Your task to perform on an android device: toggle javascript in the chrome app Image 0: 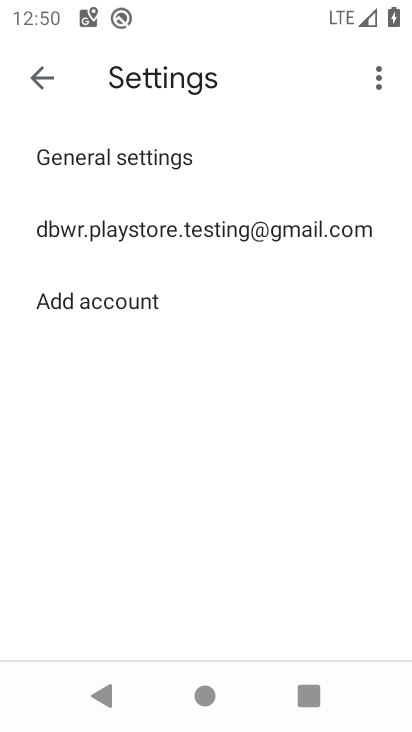
Step 0: click (34, 67)
Your task to perform on an android device: toggle javascript in the chrome app Image 1: 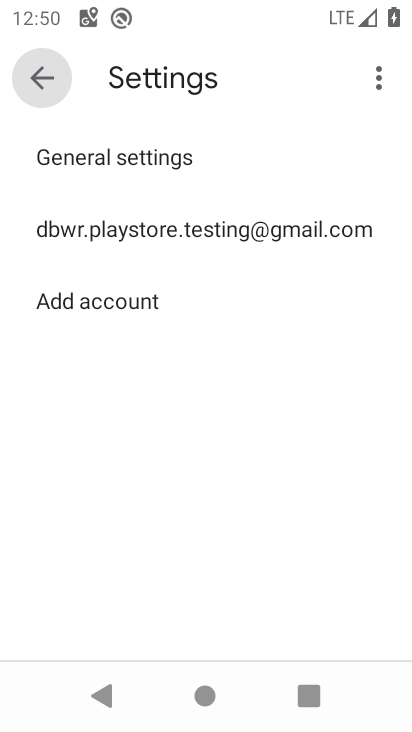
Step 1: click (46, 72)
Your task to perform on an android device: toggle javascript in the chrome app Image 2: 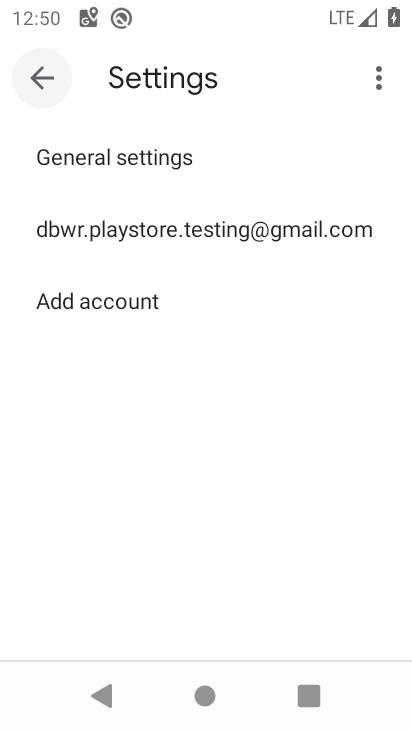
Step 2: click (45, 72)
Your task to perform on an android device: toggle javascript in the chrome app Image 3: 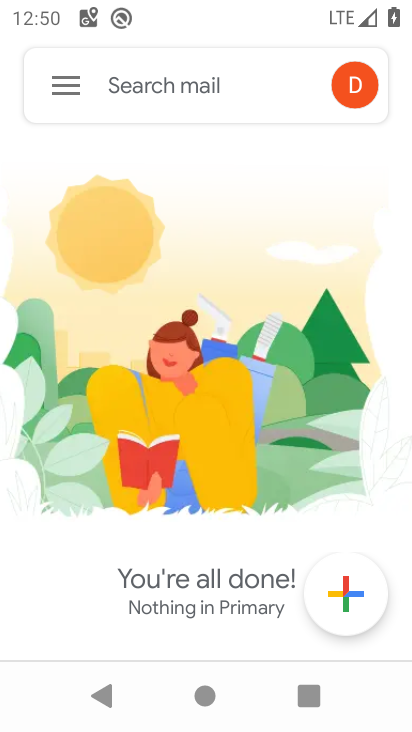
Step 3: press back button
Your task to perform on an android device: toggle javascript in the chrome app Image 4: 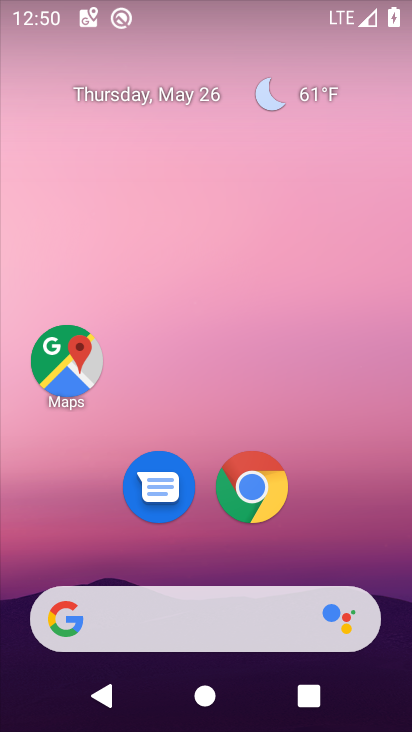
Step 4: drag from (238, 696) to (109, 73)
Your task to perform on an android device: toggle javascript in the chrome app Image 5: 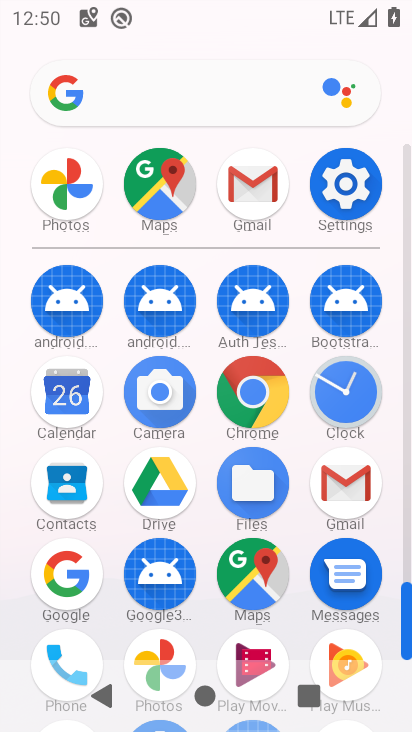
Step 5: click (254, 397)
Your task to perform on an android device: toggle javascript in the chrome app Image 6: 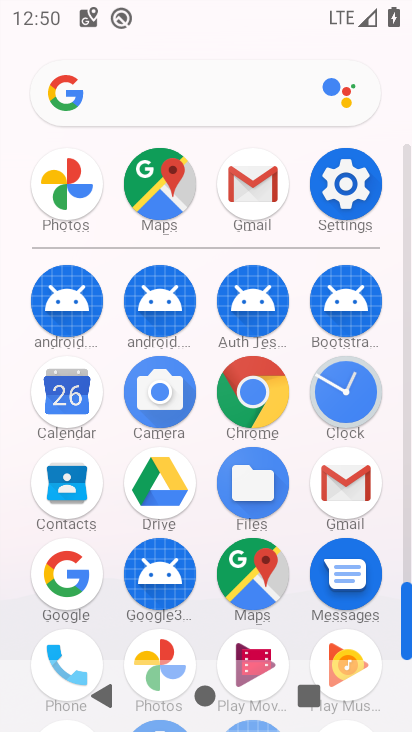
Step 6: click (257, 396)
Your task to perform on an android device: toggle javascript in the chrome app Image 7: 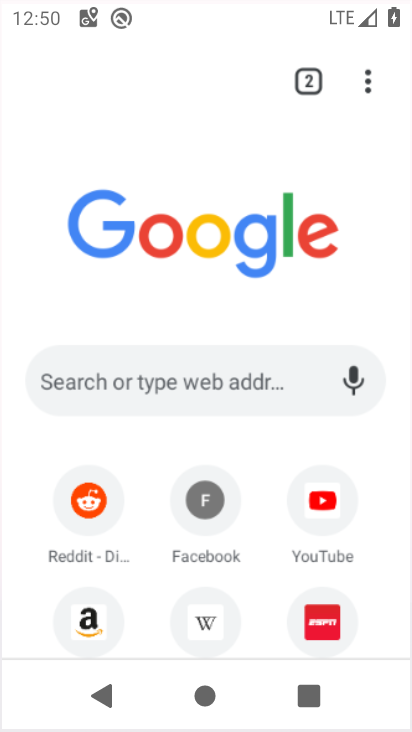
Step 7: click (260, 395)
Your task to perform on an android device: toggle javascript in the chrome app Image 8: 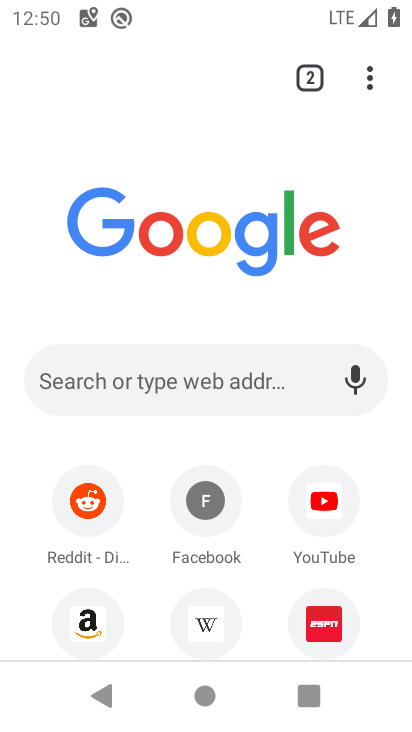
Step 8: drag from (372, 85) to (113, 577)
Your task to perform on an android device: toggle javascript in the chrome app Image 9: 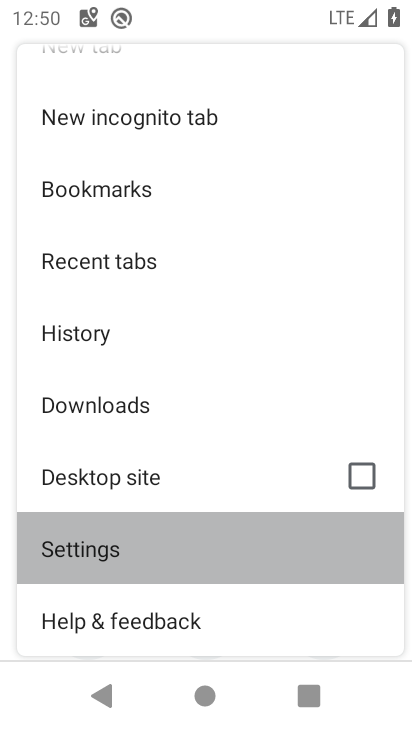
Step 9: click (105, 597)
Your task to perform on an android device: toggle javascript in the chrome app Image 10: 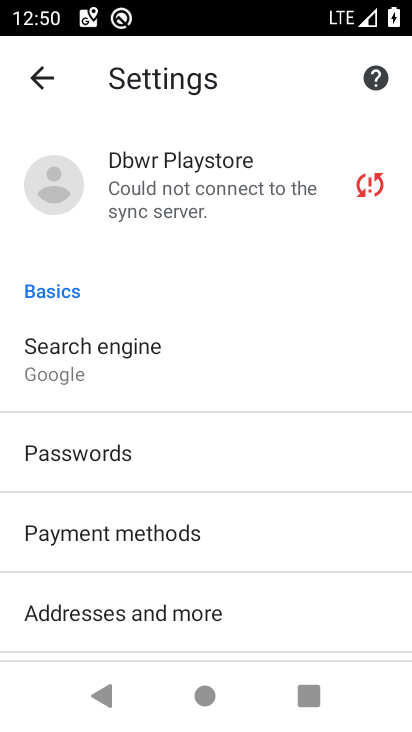
Step 10: drag from (182, 525) to (165, 149)
Your task to perform on an android device: toggle javascript in the chrome app Image 11: 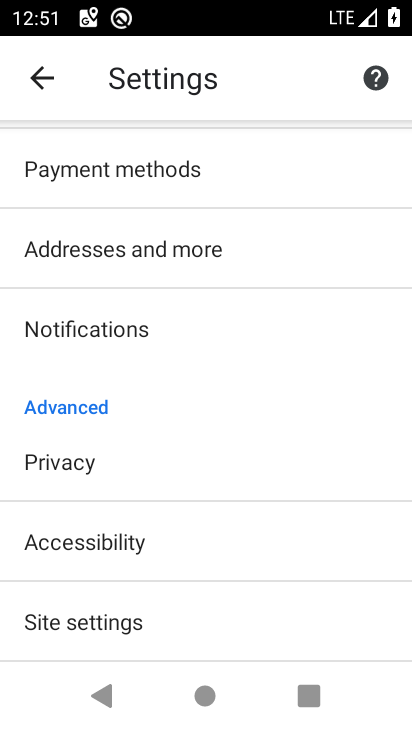
Step 11: drag from (60, 552) to (73, 263)
Your task to perform on an android device: toggle javascript in the chrome app Image 12: 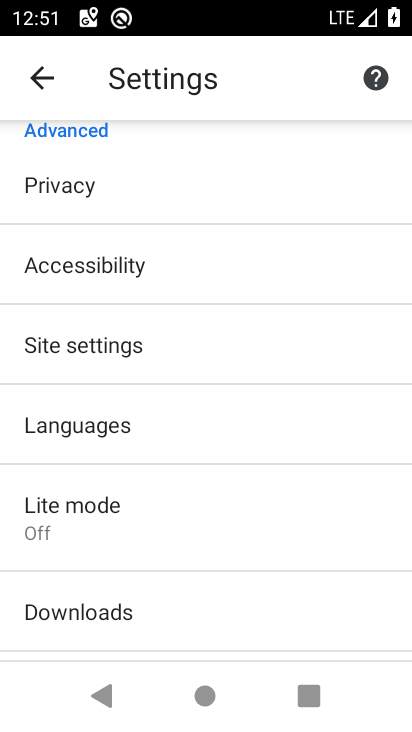
Step 12: click (65, 565)
Your task to perform on an android device: toggle javascript in the chrome app Image 13: 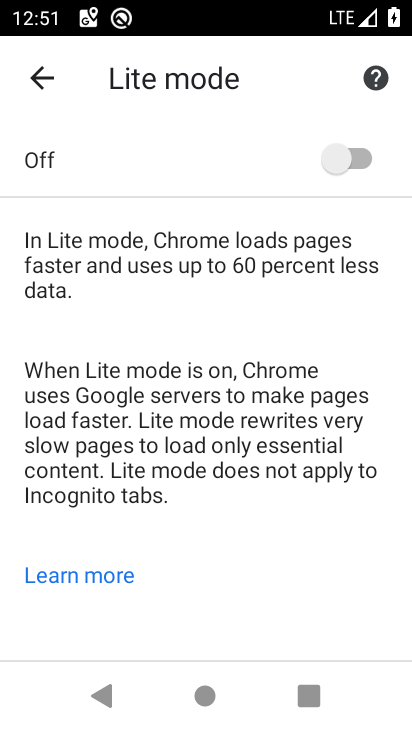
Step 13: click (34, 79)
Your task to perform on an android device: toggle javascript in the chrome app Image 14: 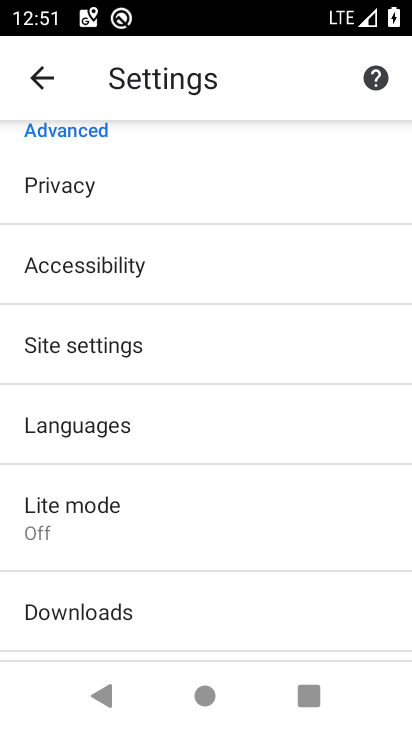
Step 14: click (45, 83)
Your task to perform on an android device: toggle javascript in the chrome app Image 15: 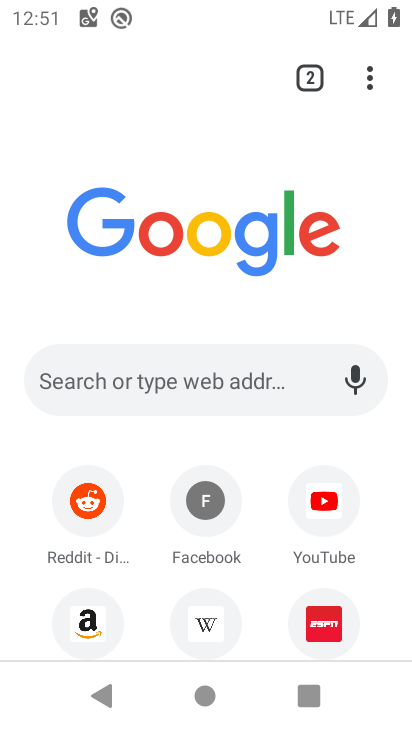
Step 15: drag from (368, 77) to (87, 553)
Your task to perform on an android device: toggle javascript in the chrome app Image 16: 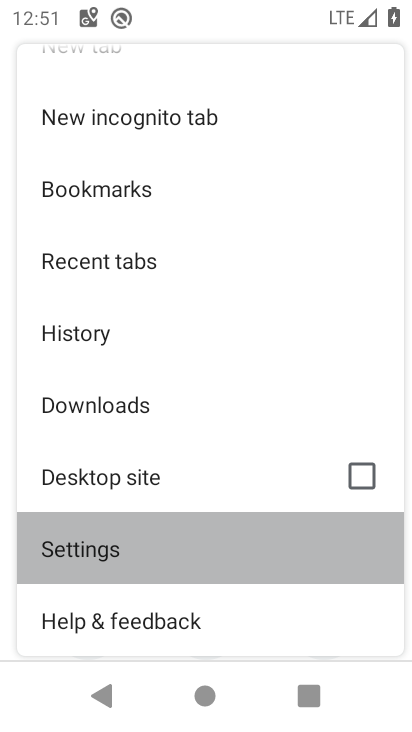
Step 16: click (96, 553)
Your task to perform on an android device: toggle javascript in the chrome app Image 17: 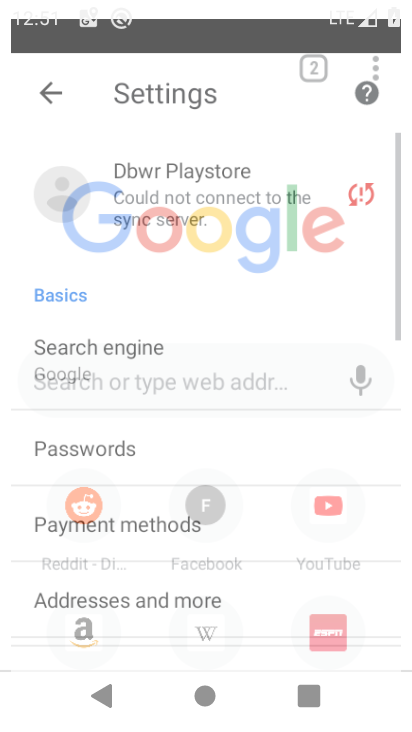
Step 17: click (97, 553)
Your task to perform on an android device: toggle javascript in the chrome app Image 18: 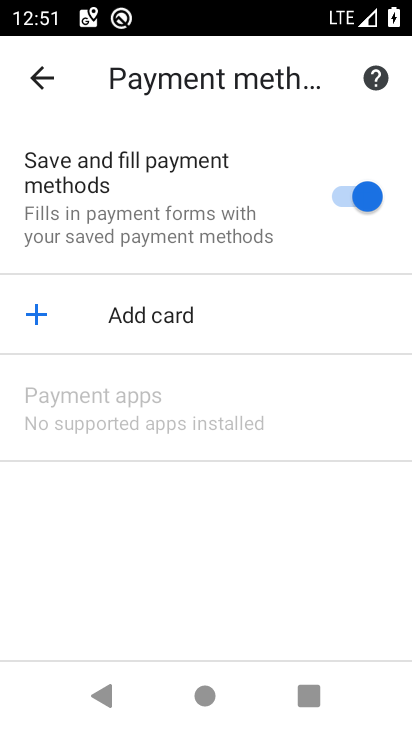
Step 18: click (39, 86)
Your task to perform on an android device: toggle javascript in the chrome app Image 19: 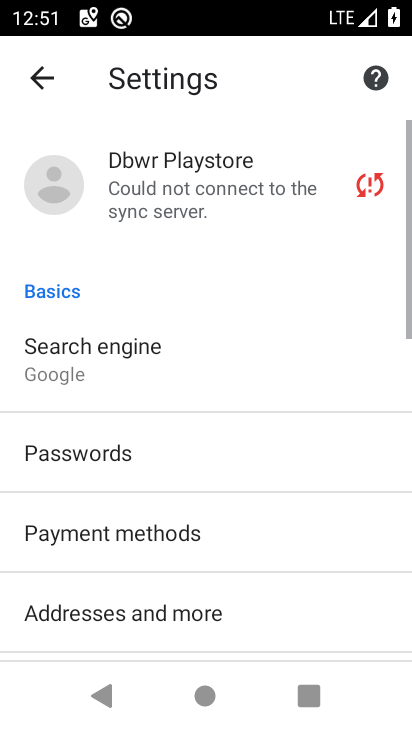
Step 19: drag from (162, 565) to (156, 186)
Your task to perform on an android device: toggle javascript in the chrome app Image 20: 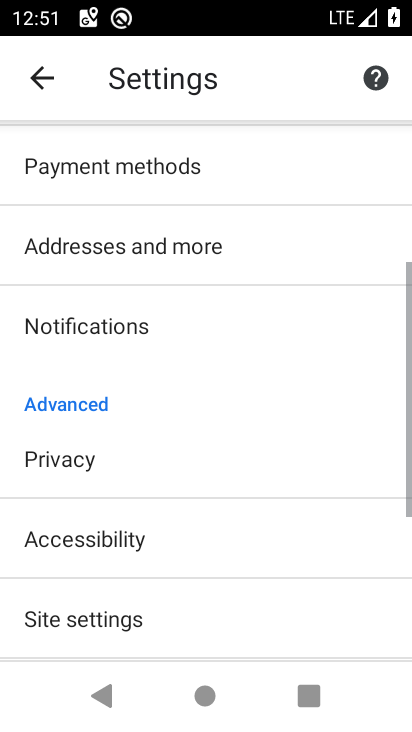
Step 20: drag from (202, 523) to (202, 184)
Your task to perform on an android device: toggle javascript in the chrome app Image 21: 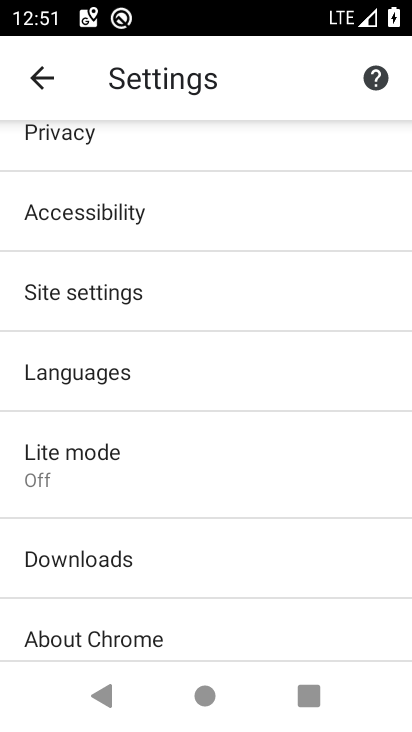
Step 21: click (77, 286)
Your task to perform on an android device: toggle javascript in the chrome app Image 22: 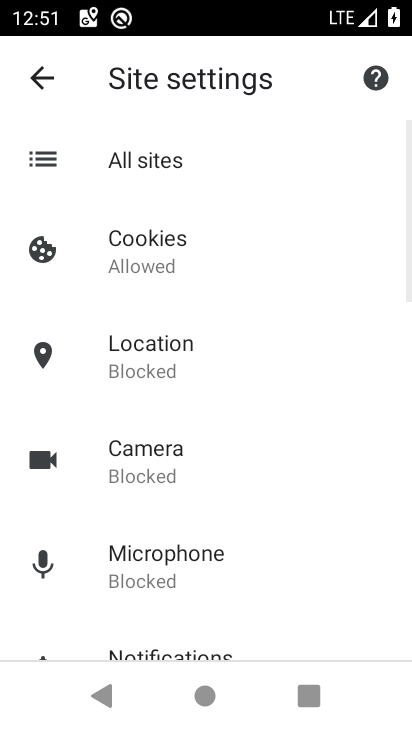
Step 22: drag from (209, 501) to (207, 250)
Your task to perform on an android device: toggle javascript in the chrome app Image 23: 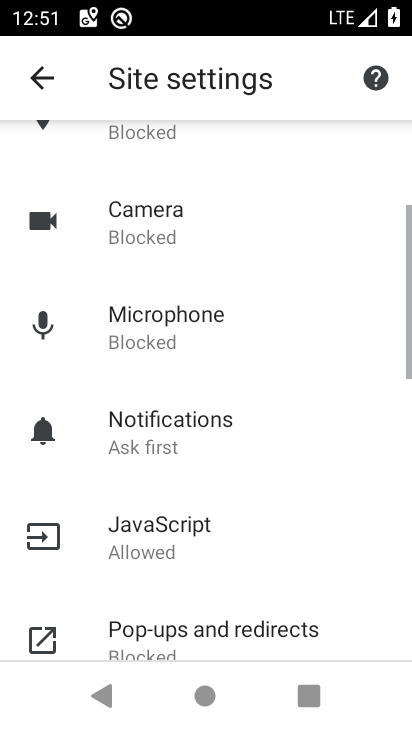
Step 23: drag from (197, 378) to (182, 252)
Your task to perform on an android device: toggle javascript in the chrome app Image 24: 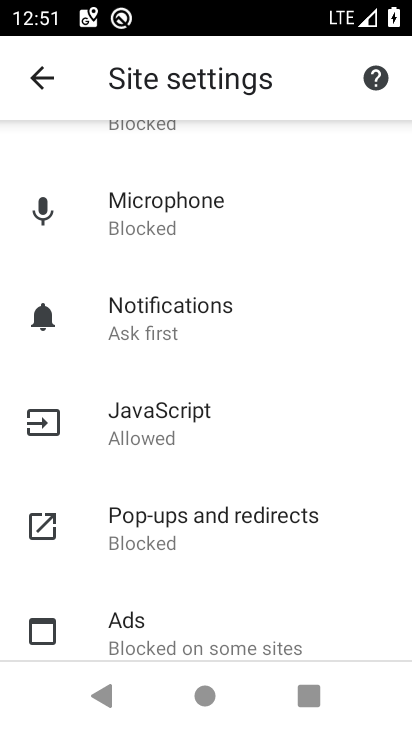
Step 24: click (144, 428)
Your task to perform on an android device: toggle javascript in the chrome app Image 25: 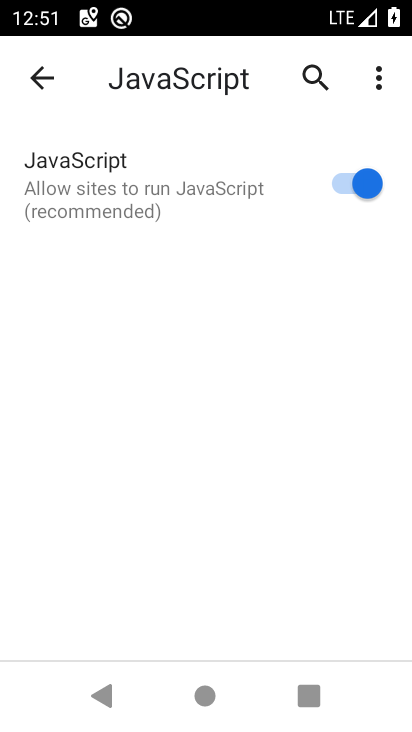
Step 25: click (362, 164)
Your task to perform on an android device: toggle javascript in the chrome app Image 26: 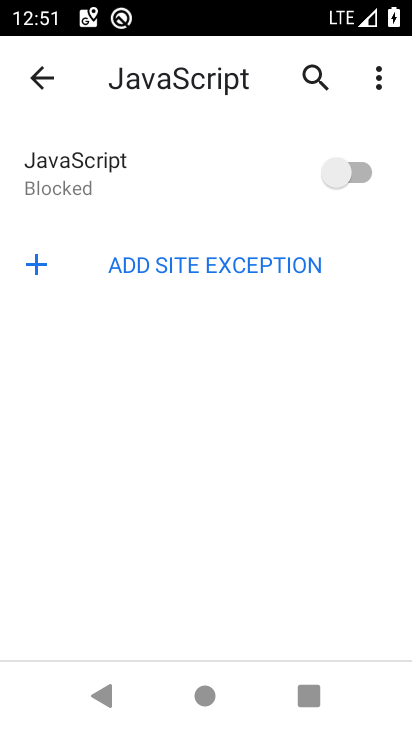
Step 26: task complete